Your task to perform on an android device: Set the phone to "Do not disturb". Image 0: 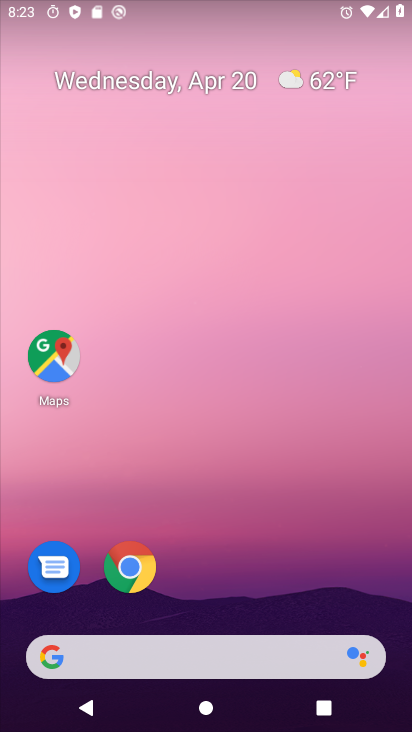
Step 0: drag from (387, 609) to (353, 0)
Your task to perform on an android device: Set the phone to "Do not disturb". Image 1: 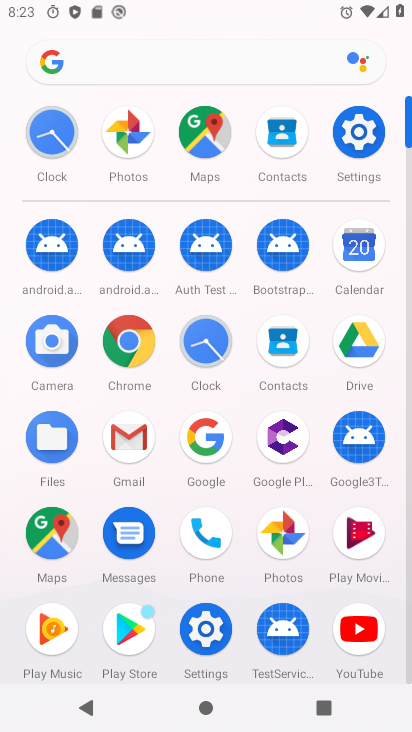
Step 1: click (350, 134)
Your task to perform on an android device: Set the phone to "Do not disturb". Image 2: 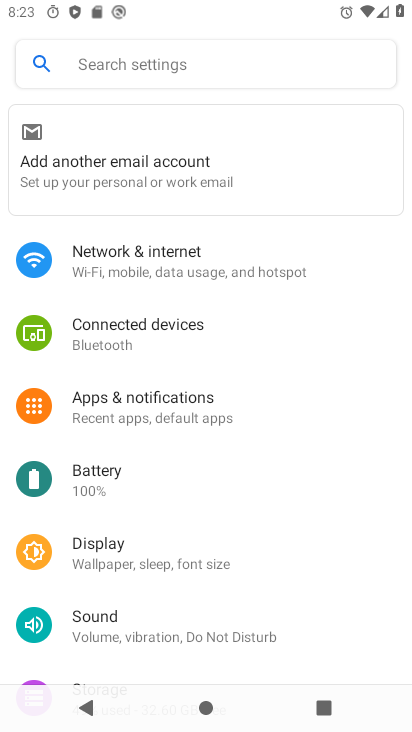
Step 2: click (81, 613)
Your task to perform on an android device: Set the phone to "Do not disturb". Image 3: 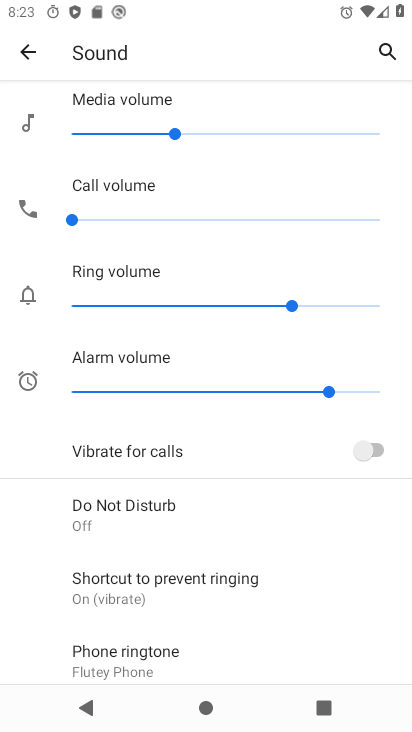
Step 3: click (115, 523)
Your task to perform on an android device: Set the phone to "Do not disturb". Image 4: 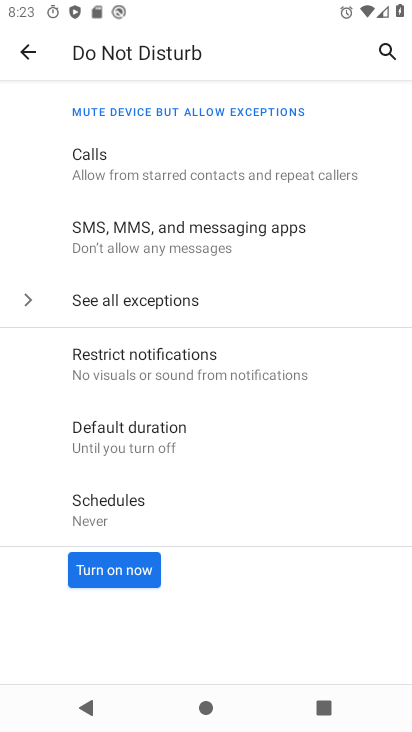
Step 4: click (118, 551)
Your task to perform on an android device: Set the phone to "Do not disturb". Image 5: 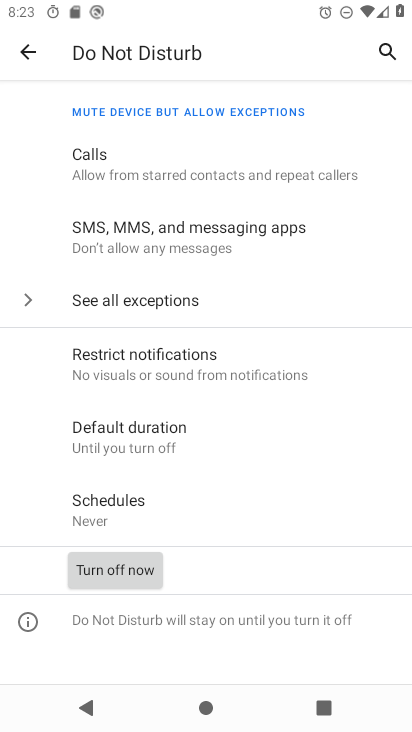
Step 5: task complete